Your task to perform on an android device: check battery use Image 0: 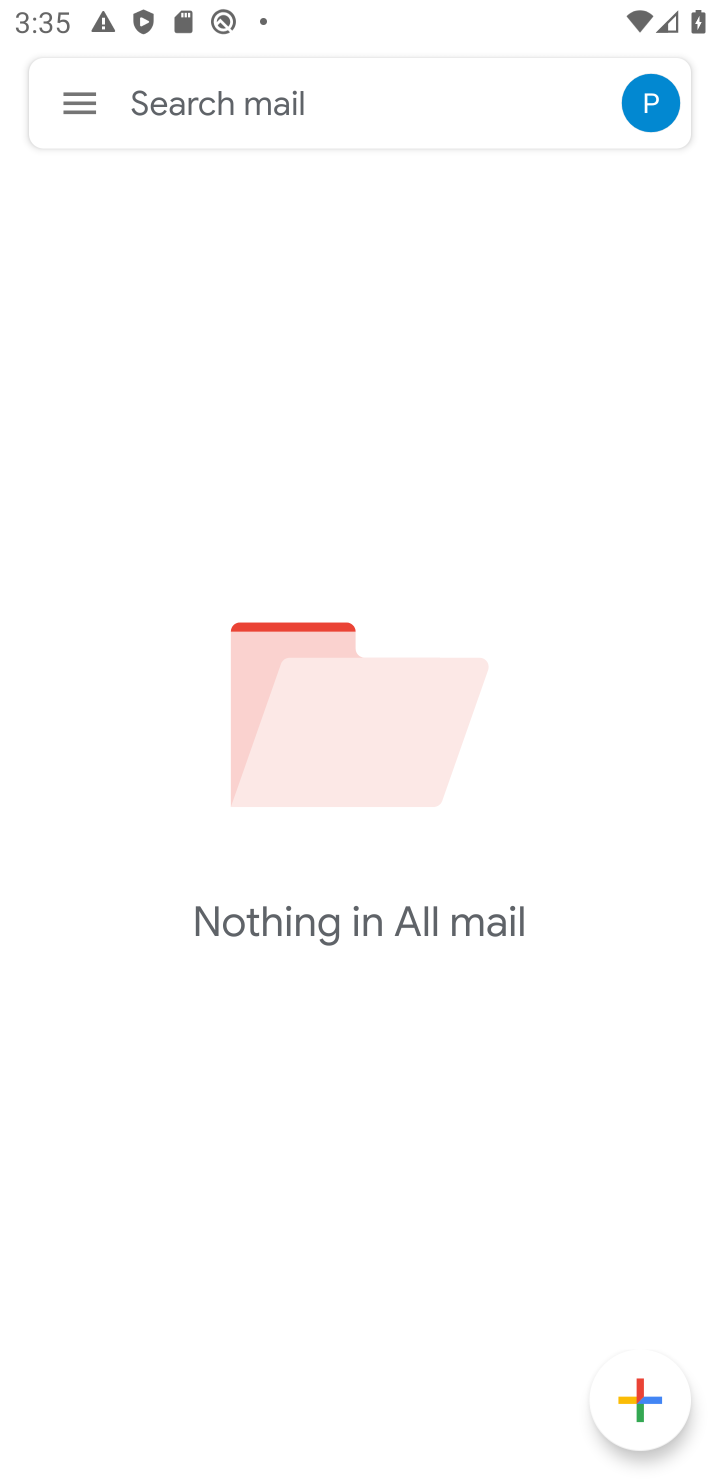
Step 0: press home button
Your task to perform on an android device: check battery use Image 1: 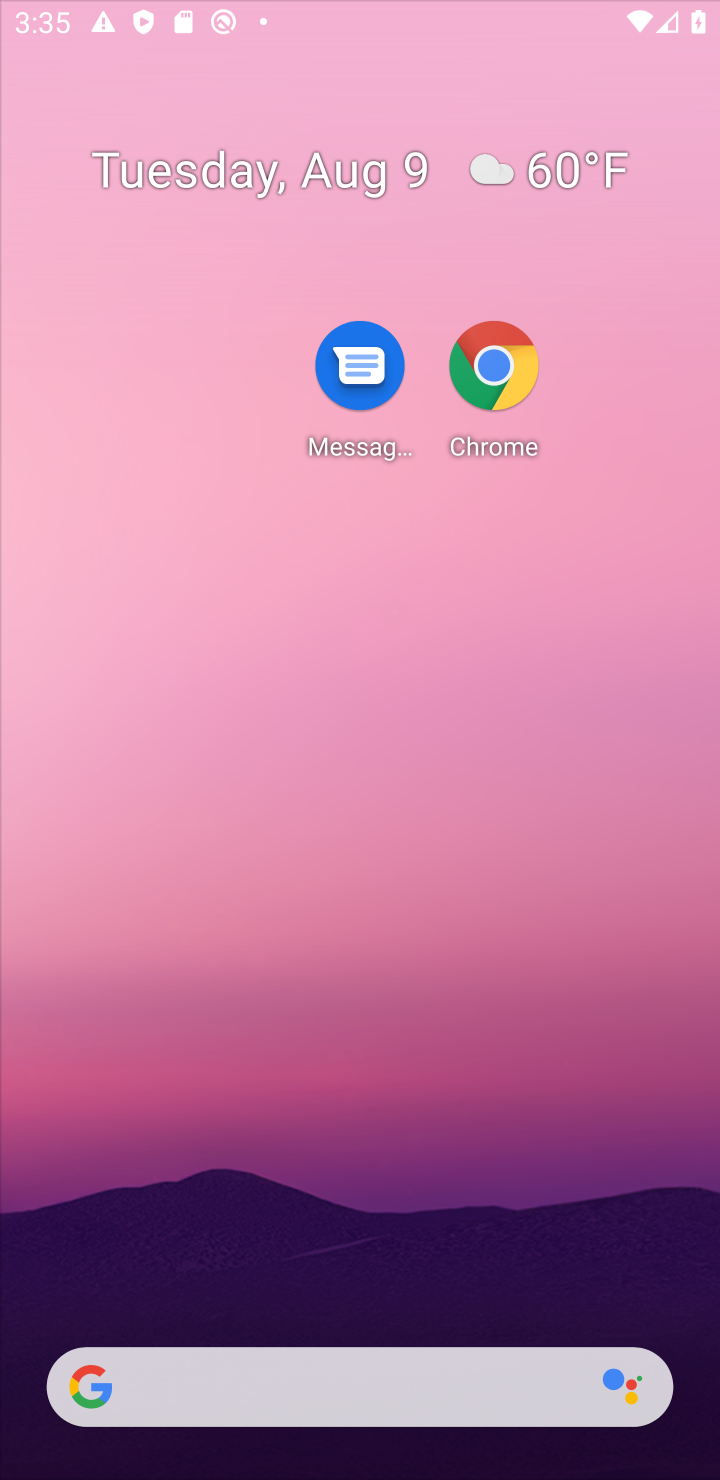
Step 1: drag from (436, 1347) to (499, 377)
Your task to perform on an android device: check battery use Image 2: 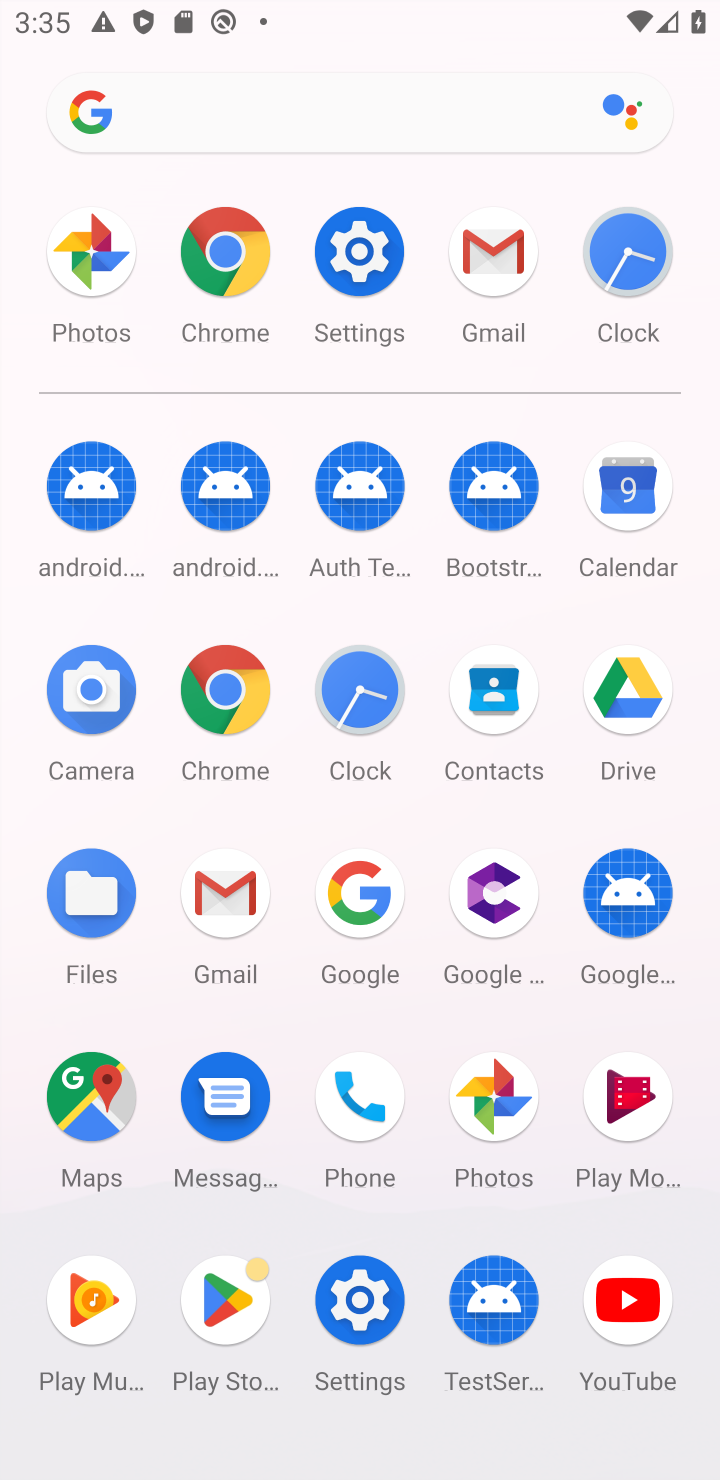
Step 2: click (359, 240)
Your task to perform on an android device: check battery use Image 3: 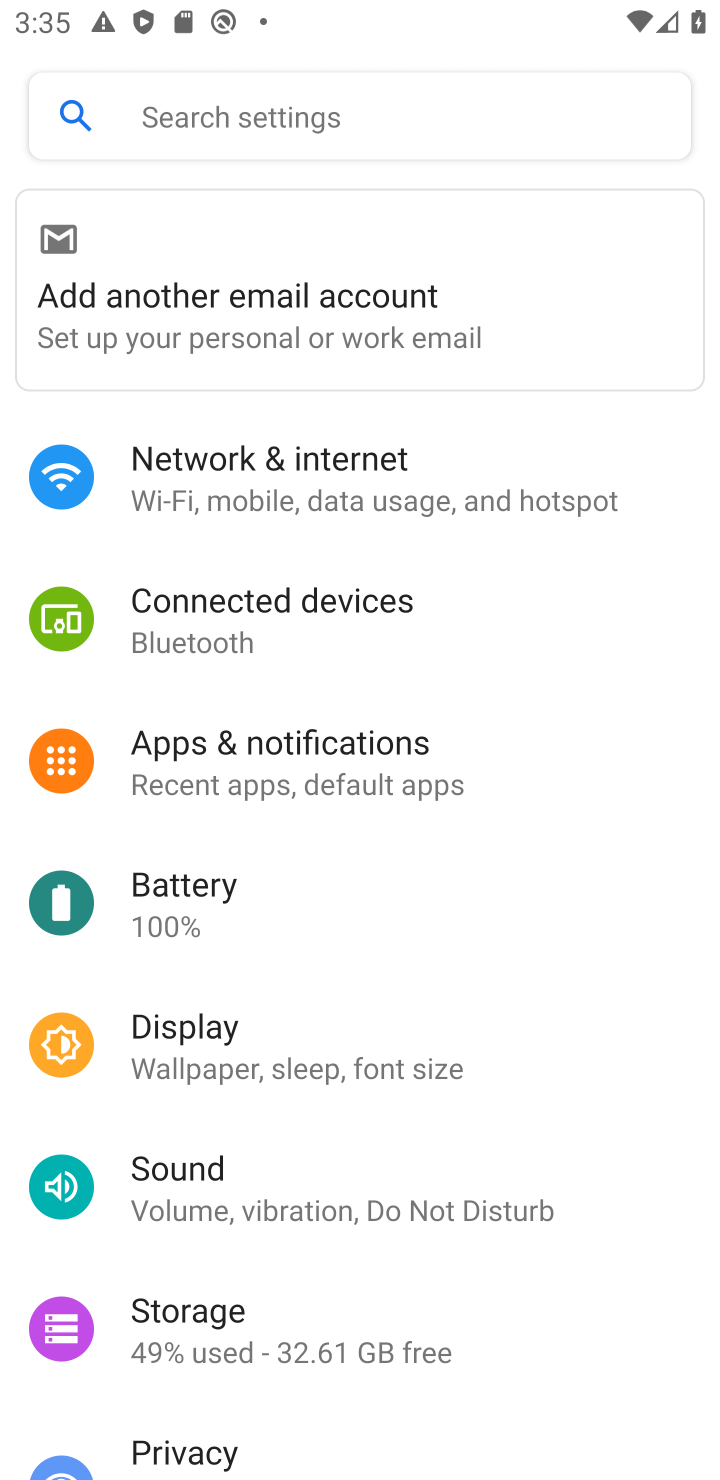
Step 3: click (256, 881)
Your task to perform on an android device: check battery use Image 4: 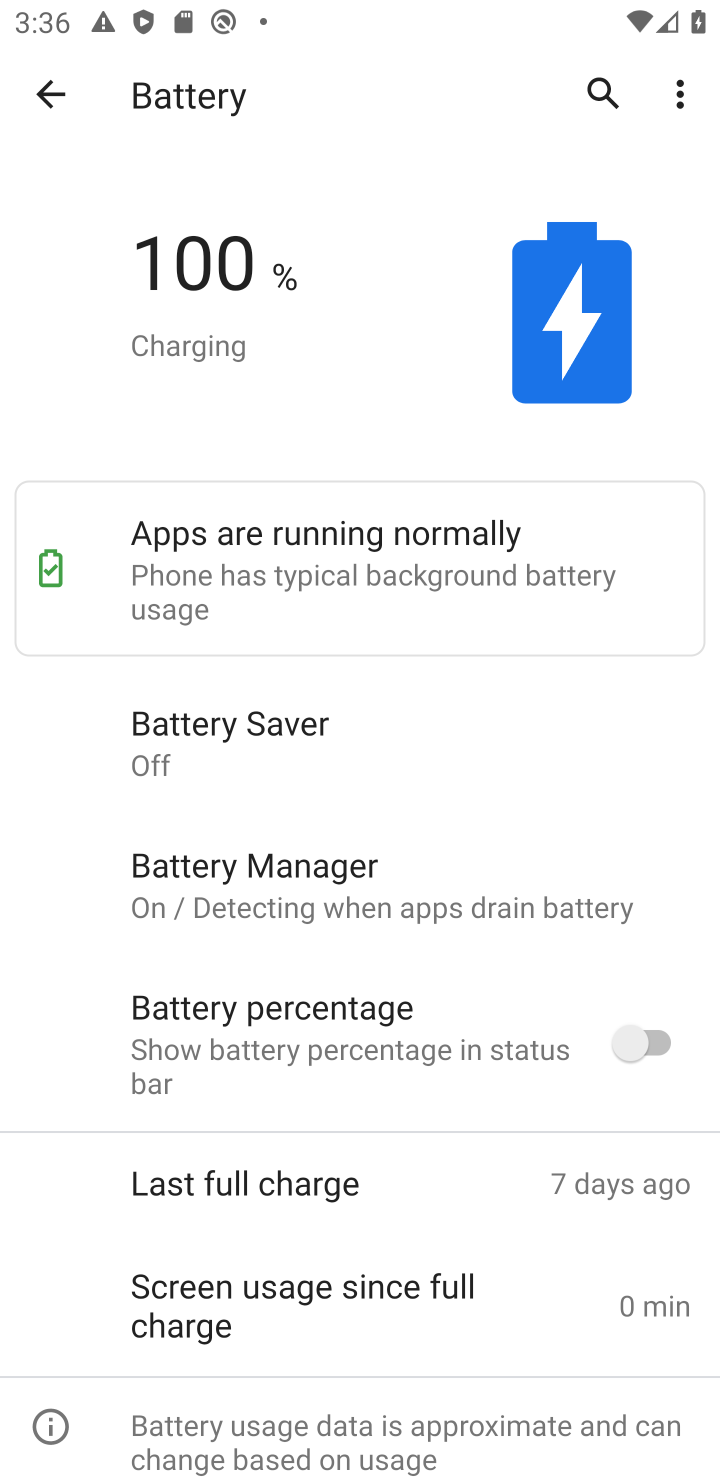
Step 4: task complete